Your task to perform on an android device: Go to notification settings Image 0: 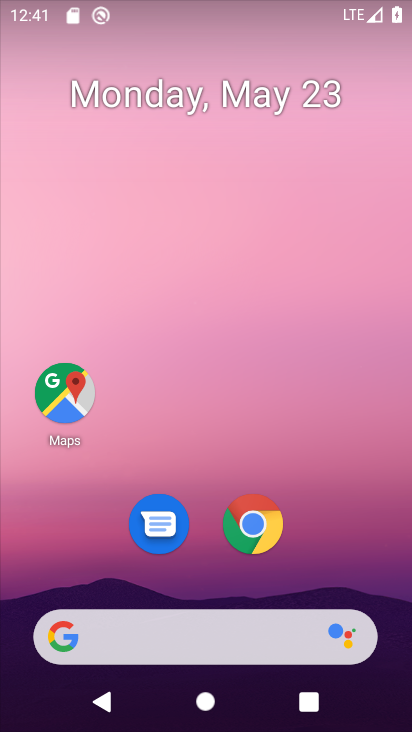
Step 0: drag from (206, 420) to (227, 0)
Your task to perform on an android device: Go to notification settings Image 1: 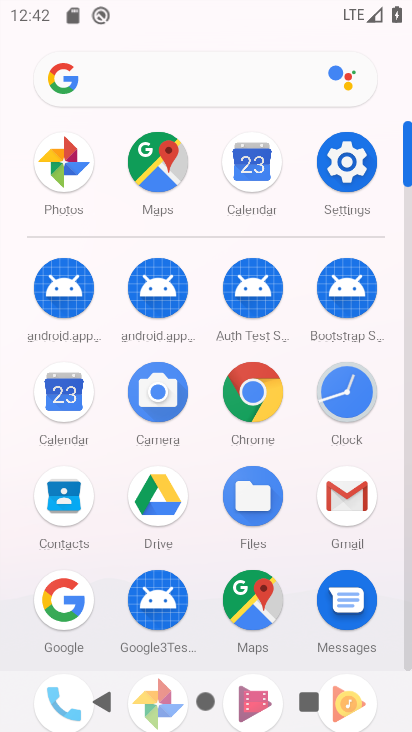
Step 1: click (361, 155)
Your task to perform on an android device: Go to notification settings Image 2: 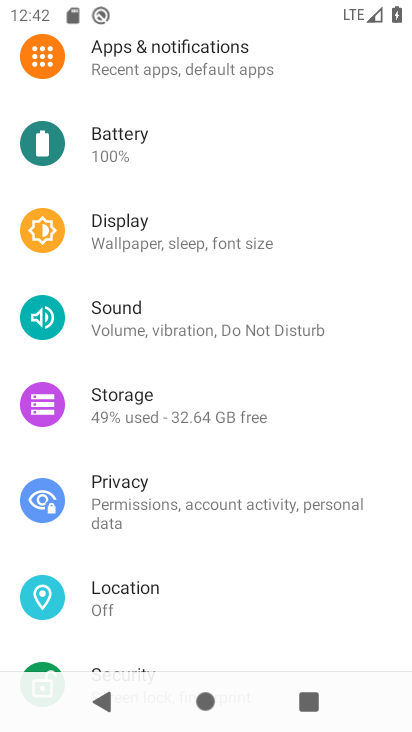
Step 2: click (212, 62)
Your task to perform on an android device: Go to notification settings Image 3: 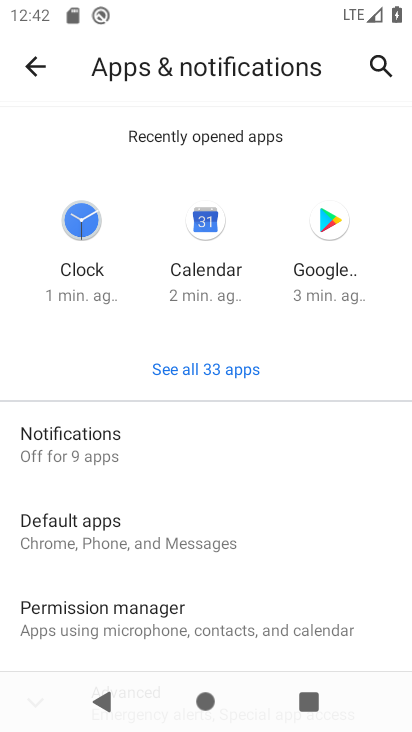
Step 3: click (121, 437)
Your task to perform on an android device: Go to notification settings Image 4: 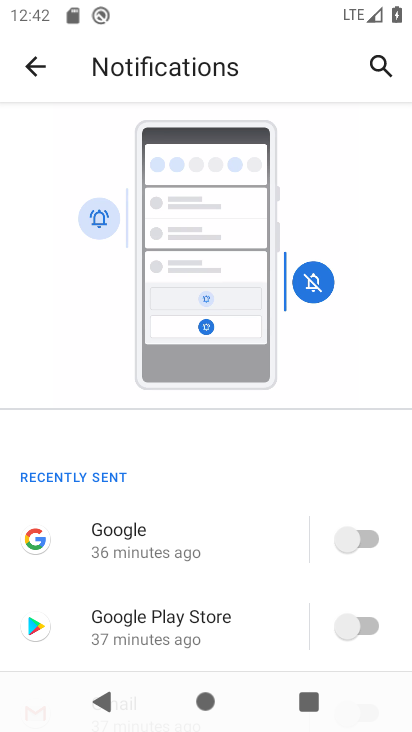
Step 4: task complete